Your task to perform on an android device: Go to wifi settings Image 0: 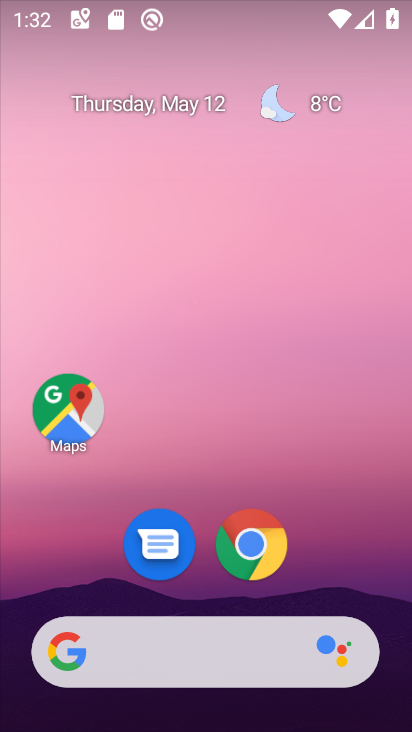
Step 0: drag from (201, 546) to (233, 83)
Your task to perform on an android device: Go to wifi settings Image 1: 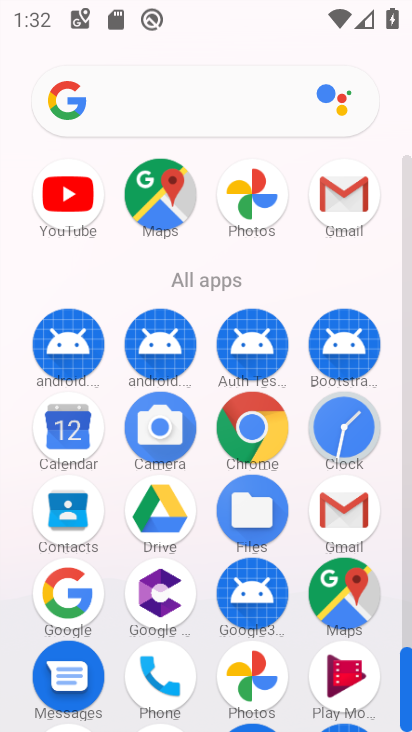
Step 1: drag from (219, 493) to (234, 262)
Your task to perform on an android device: Go to wifi settings Image 2: 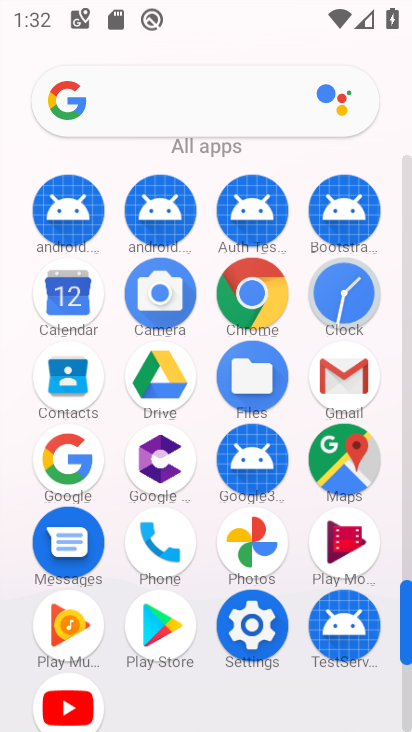
Step 2: click (237, 622)
Your task to perform on an android device: Go to wifi settings Image 3: 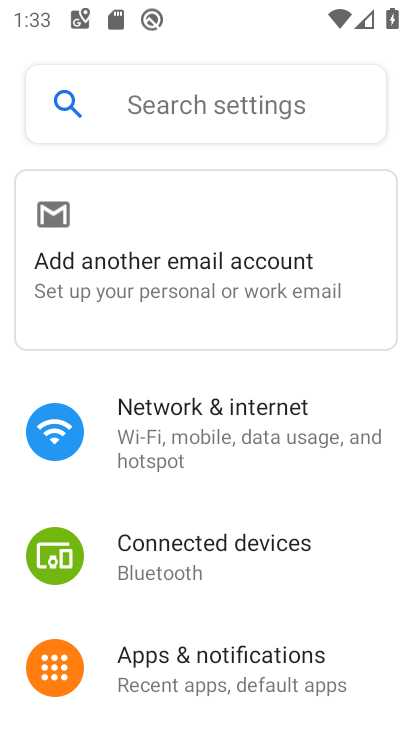
Step 3: click (240, 444)
Your task to perform on an android device: Go to wifi settings Image 4: 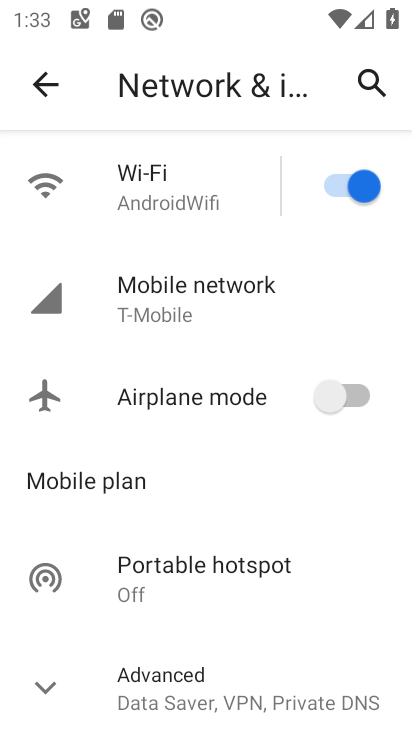
Step 4: click (212, 205)
Your task to perform on an android device: Go to wifi settings Image 5: 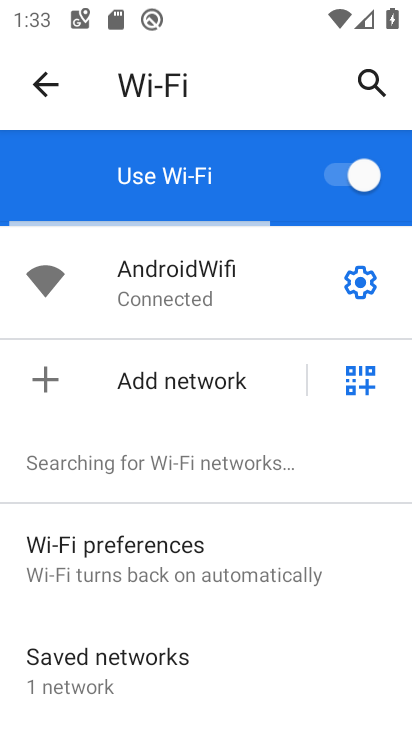
Step 5: task complete